Your task to perform on an android device: change the clock display to analog Image 0: 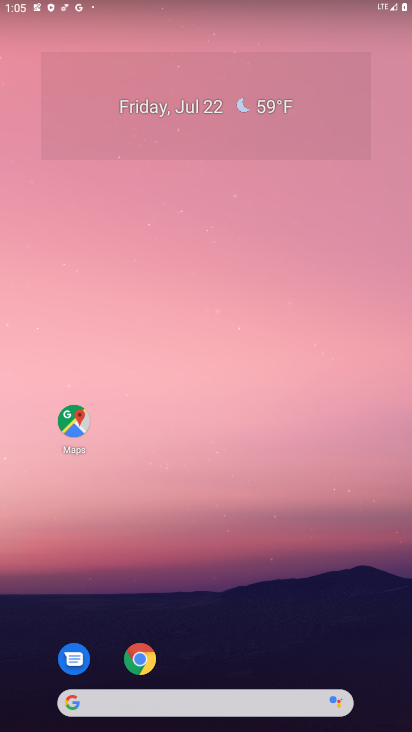
Step 0: drag from (248, 654) to (214, 20)
Your task to perform on an android device: change the clock display to analog Image 1: 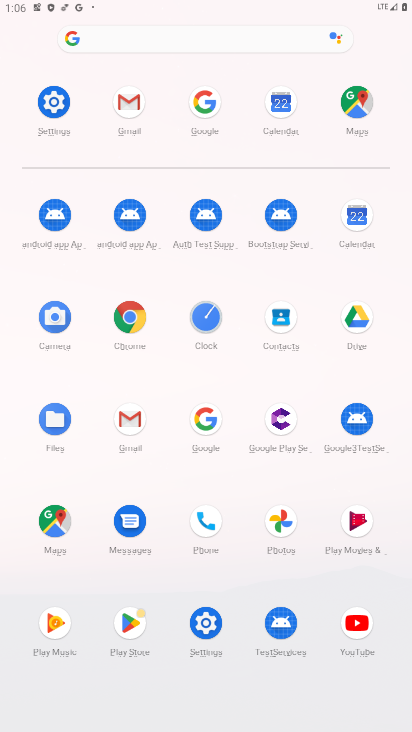
Step 1: click (205, 312)
Your task to perform on an android device: change the clock display to analog Image 2: 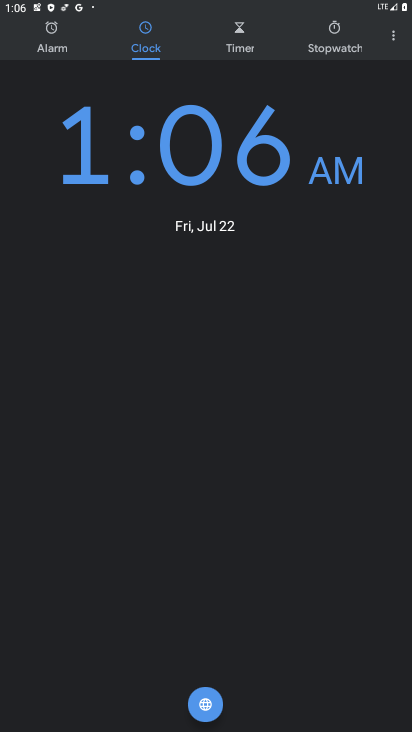
Step 2: click (396, 35)
Your task to perform on an android device: change the clock display to analog Image 3: 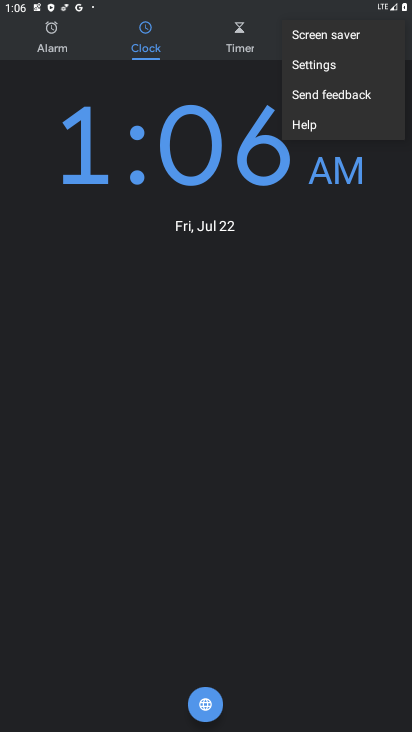
Step 3: click (337, 69)
Your task to perform on an android device: change the clock display to analog Image 4: 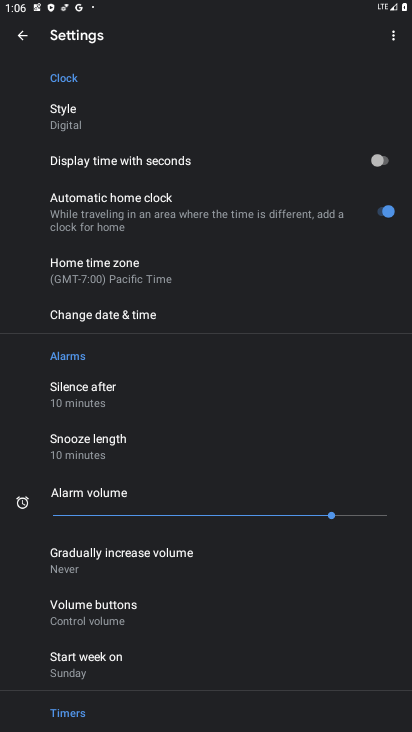
Step 4: click (72, 113)
Your task to perform on an android device: change the clock display to analog Image 5: 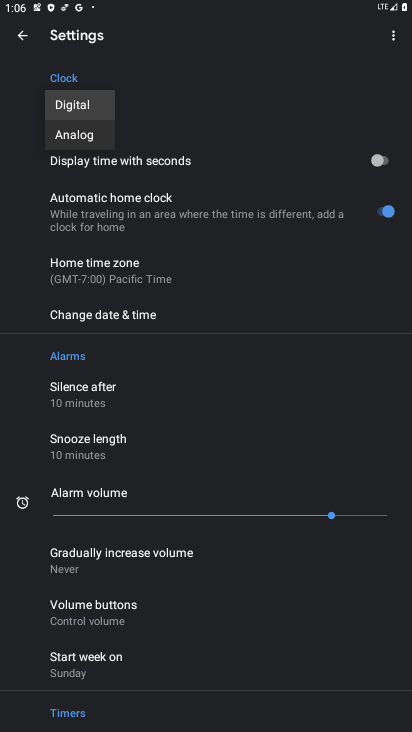
Step 5: click (69, 131)
Your task to perform on an android device: change the clock display to analog Image 6: 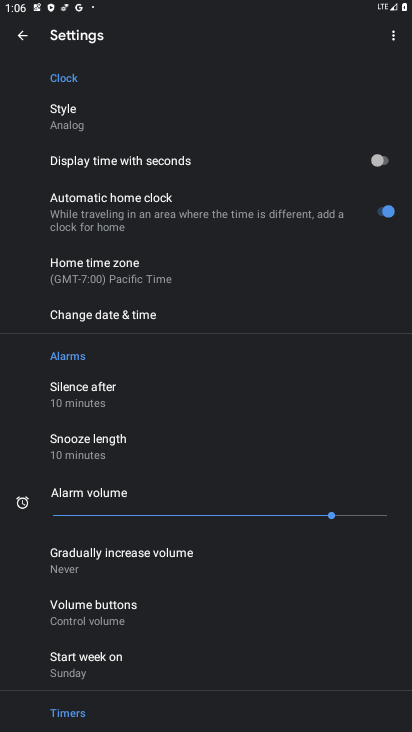
Step 6: task complete